Your task to perform on an android device: open app "YouTube Kids" Image 0: 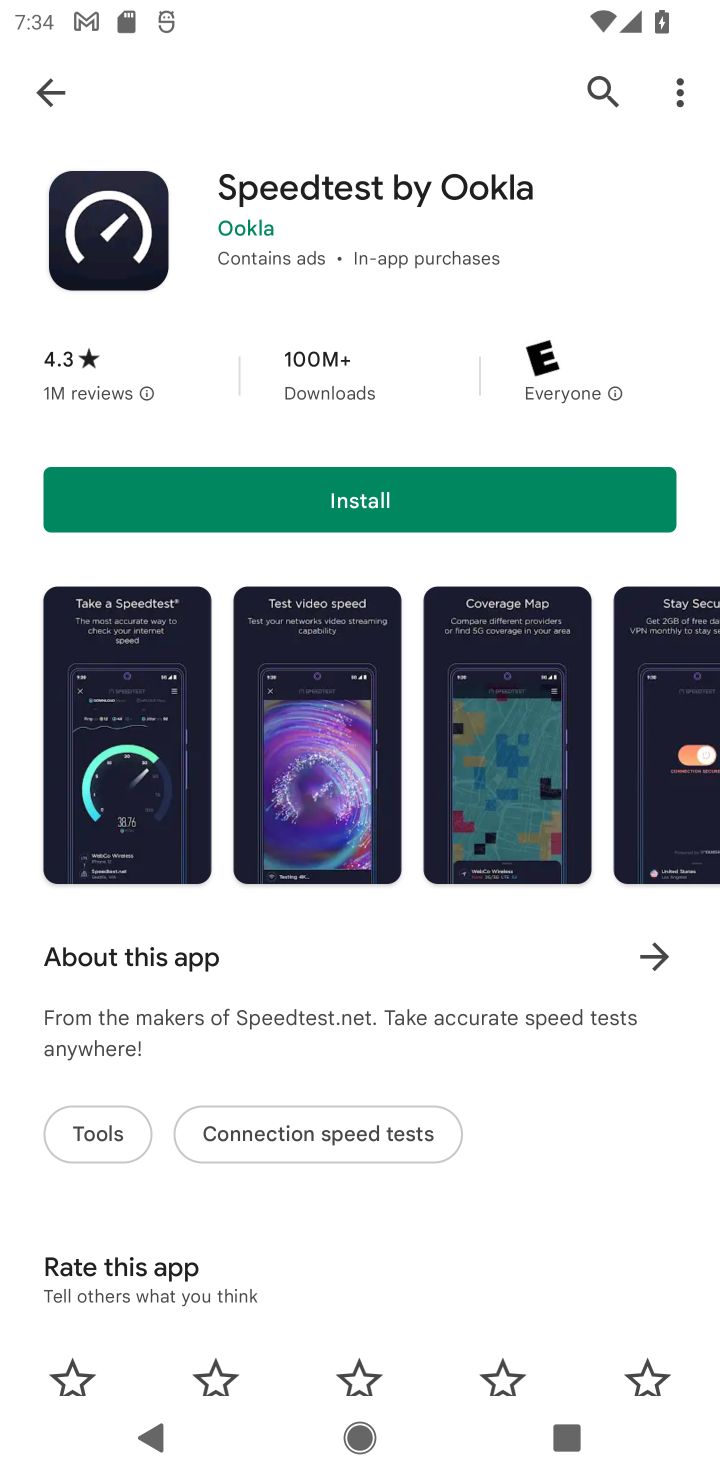
Step 0: click (60, 79)
Your task to perform on an android device: open app "YouTube Kids" Image 1: 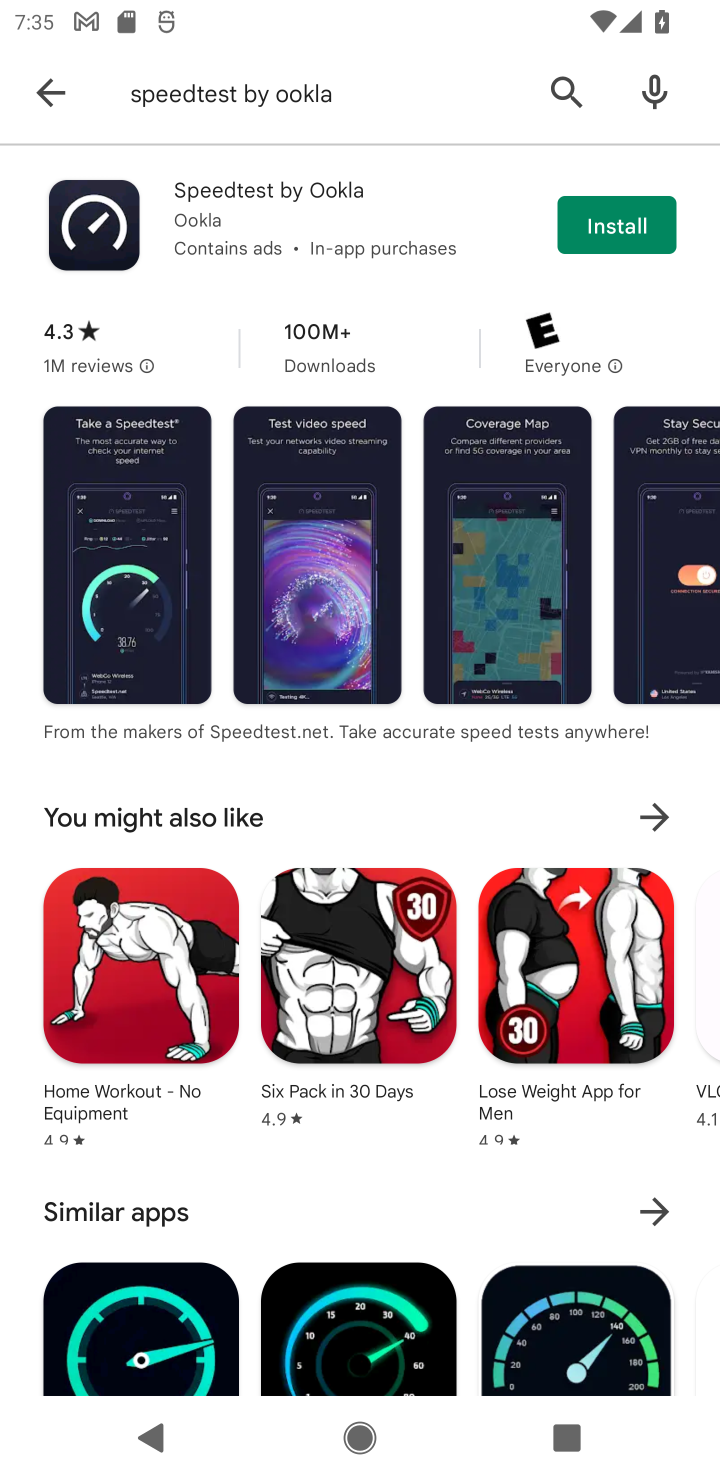
Step 1: click (59, 71)
Your task to perform on an android device: open app "YouTube Kids" Image 2: 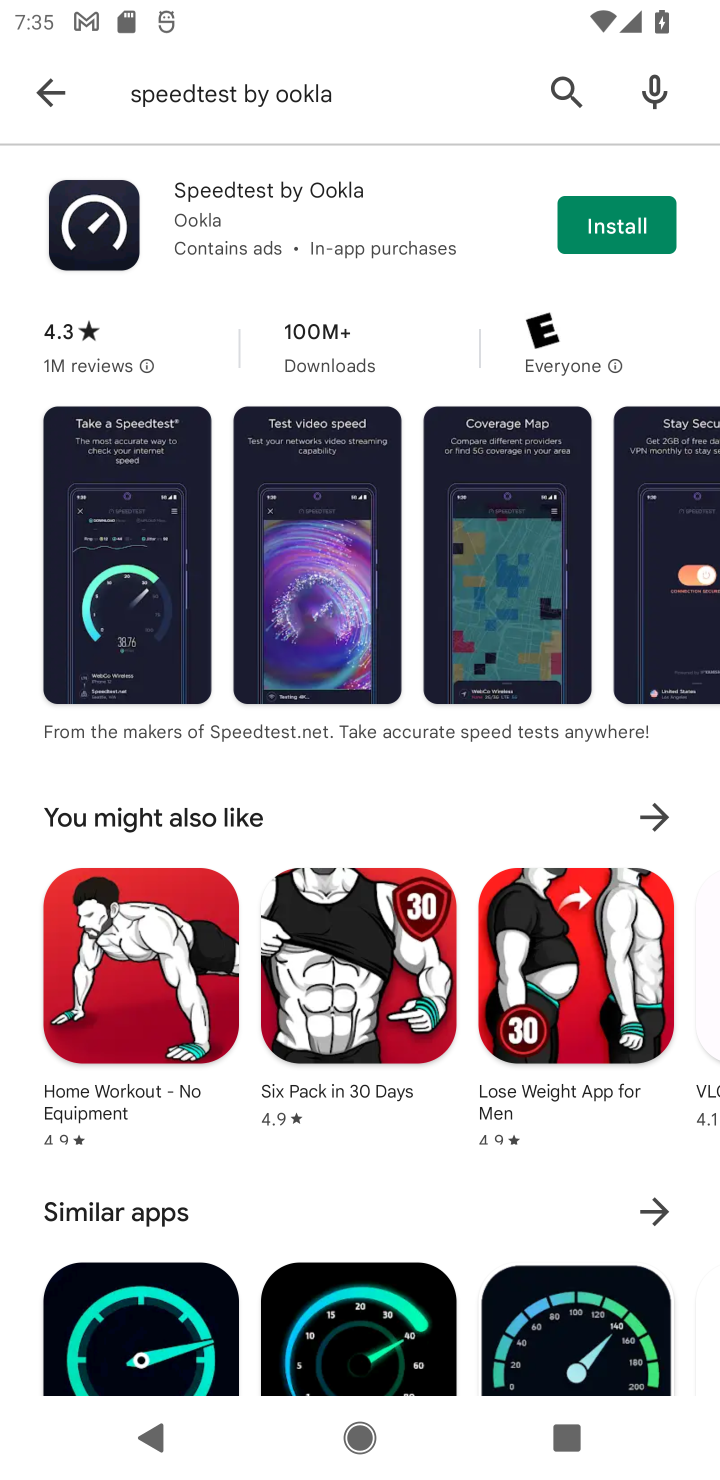
Step 2: click (10, 86)
Your task to perform on an android device: open app "YouTube Kids" Image 3: 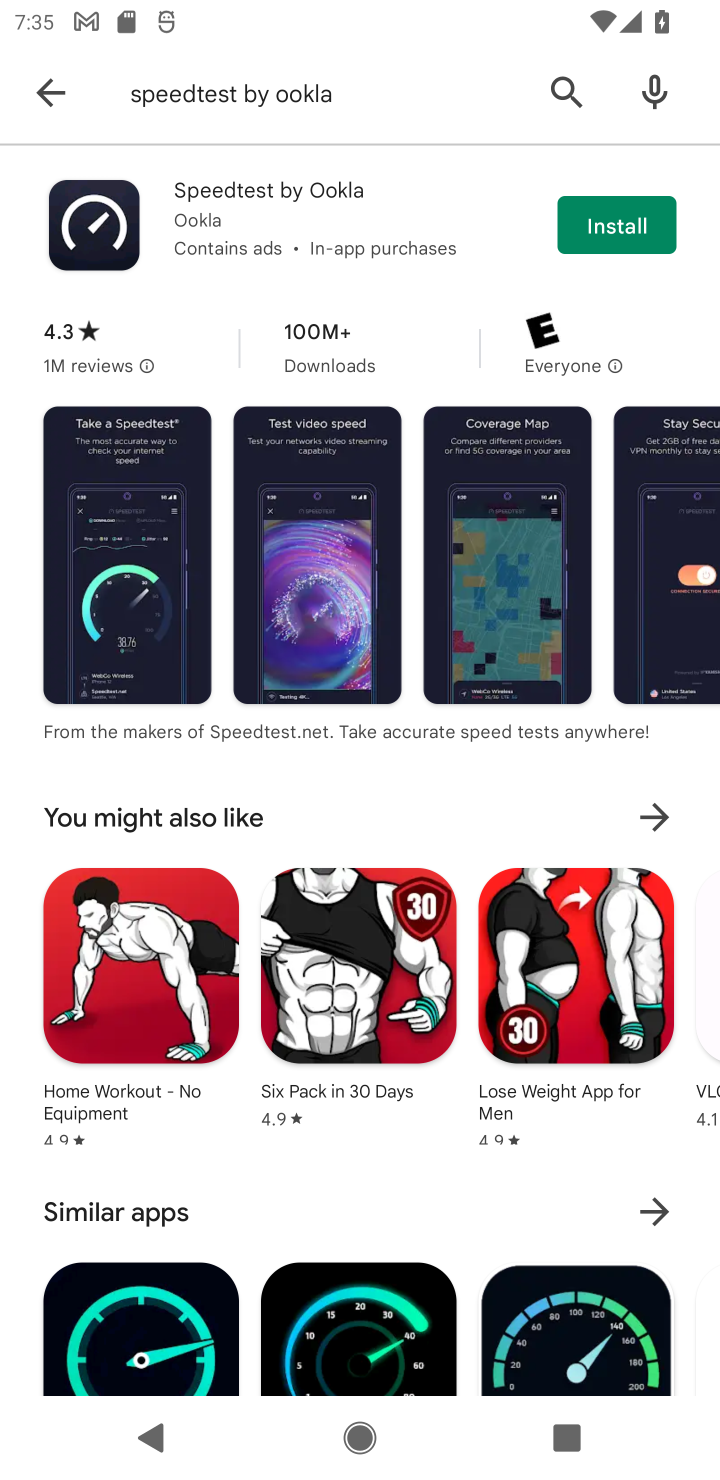
Step 3: click (34, 73)
Your task to perform on an android device: open app "YouTube Kids" Image 4: 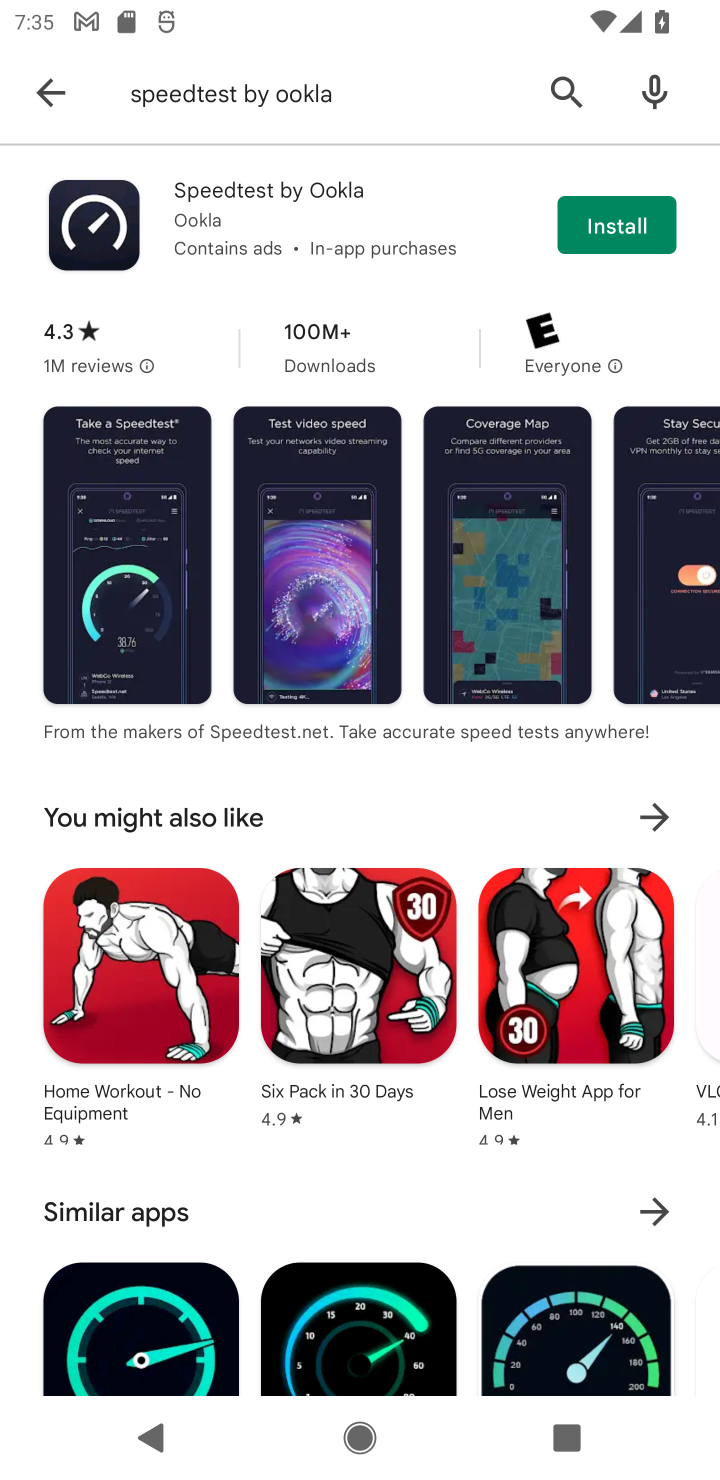
Step 4: click (37, 105)
Your task to perform on an android device: open app "YouTube Kids" Image 5: 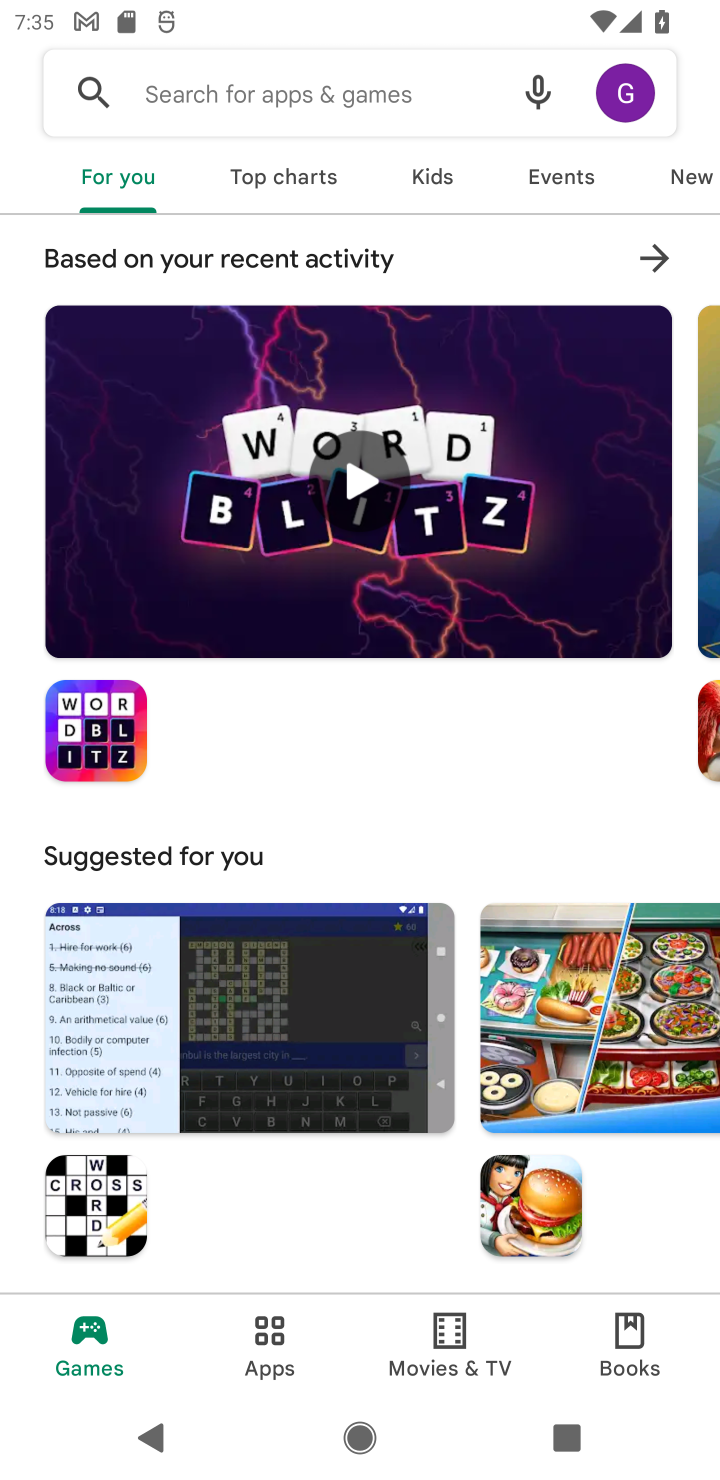
Step 5: click (191, 70)
Your task to perform on an android device: open app "YouTube Kids" Image 6: 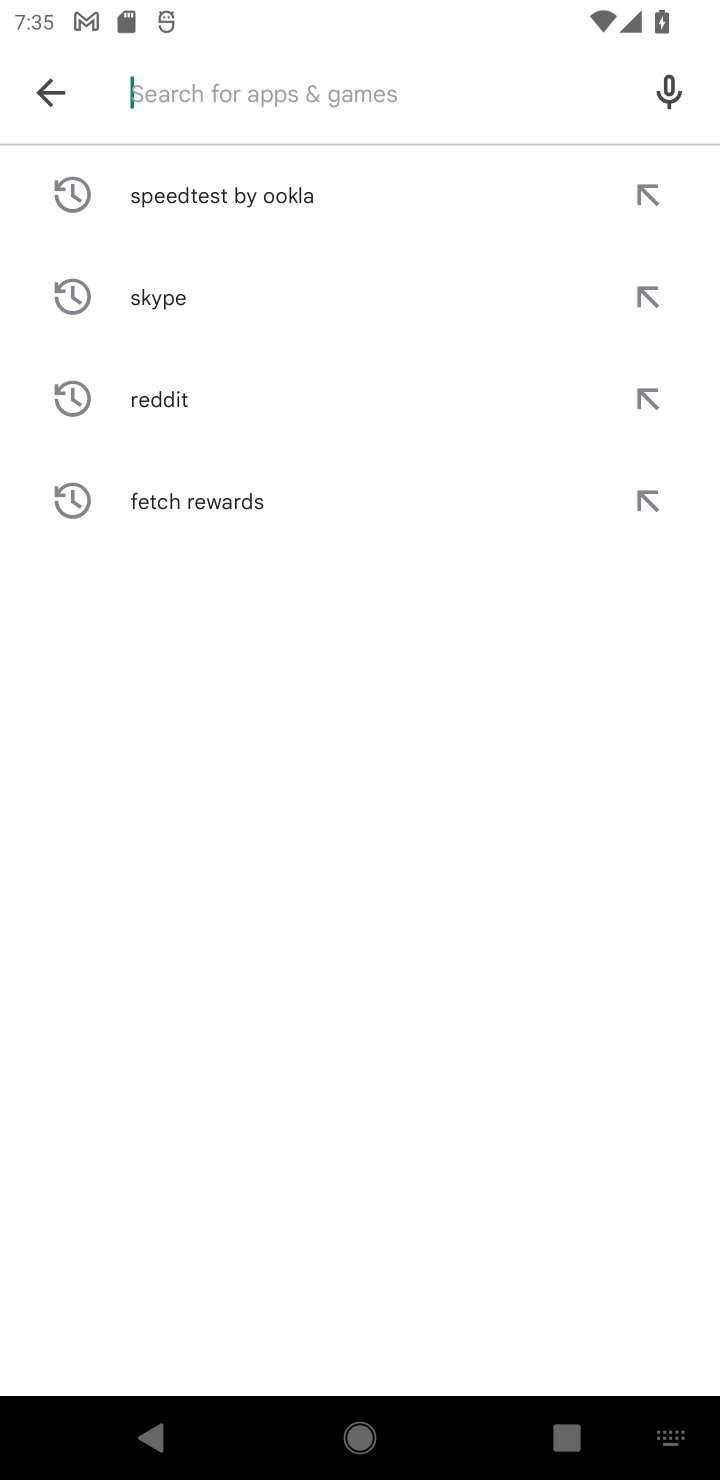
Step 6: type "YouTube Kids"
Your task to perform on an android device: open app "YouTube Kids" Image 7: 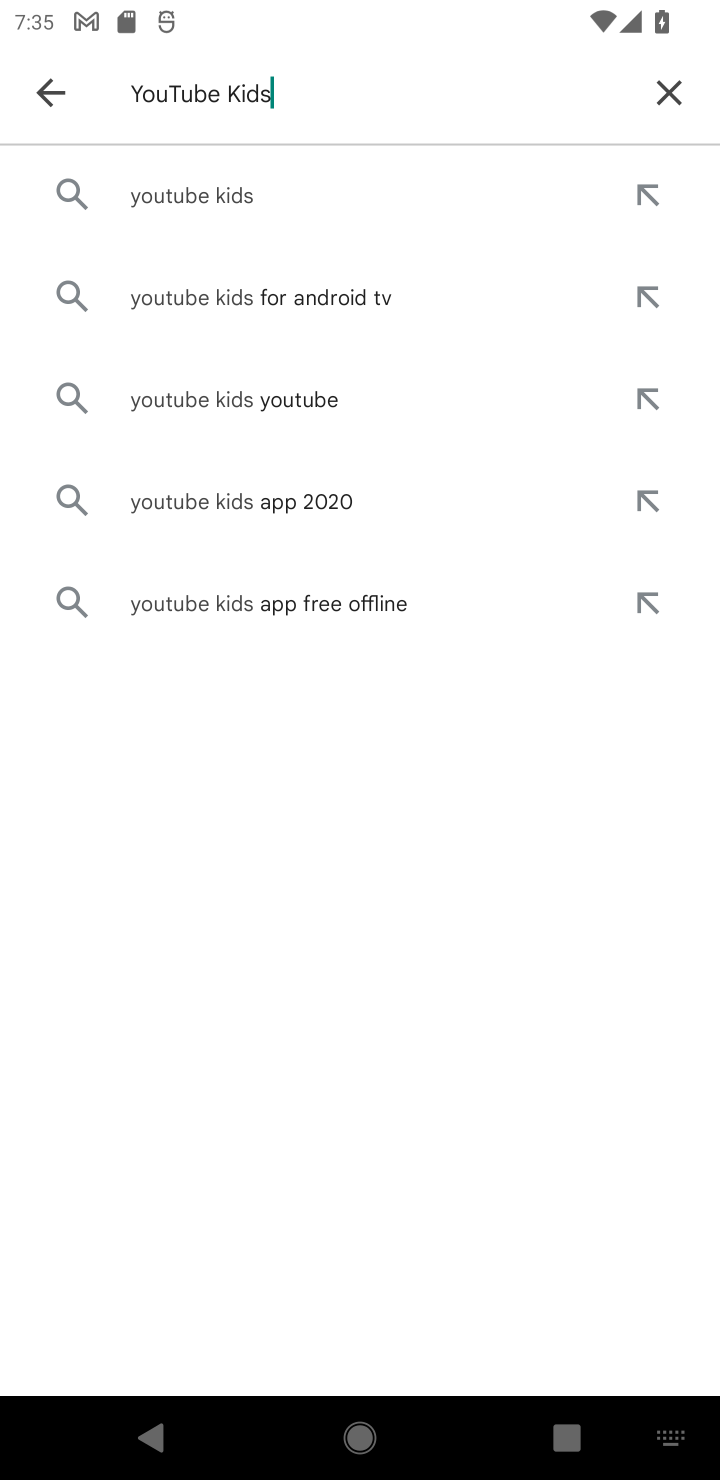
Step 7: click (174, 190)
Your task to perform on an android device: open app "YouTube Kids" Image 8: 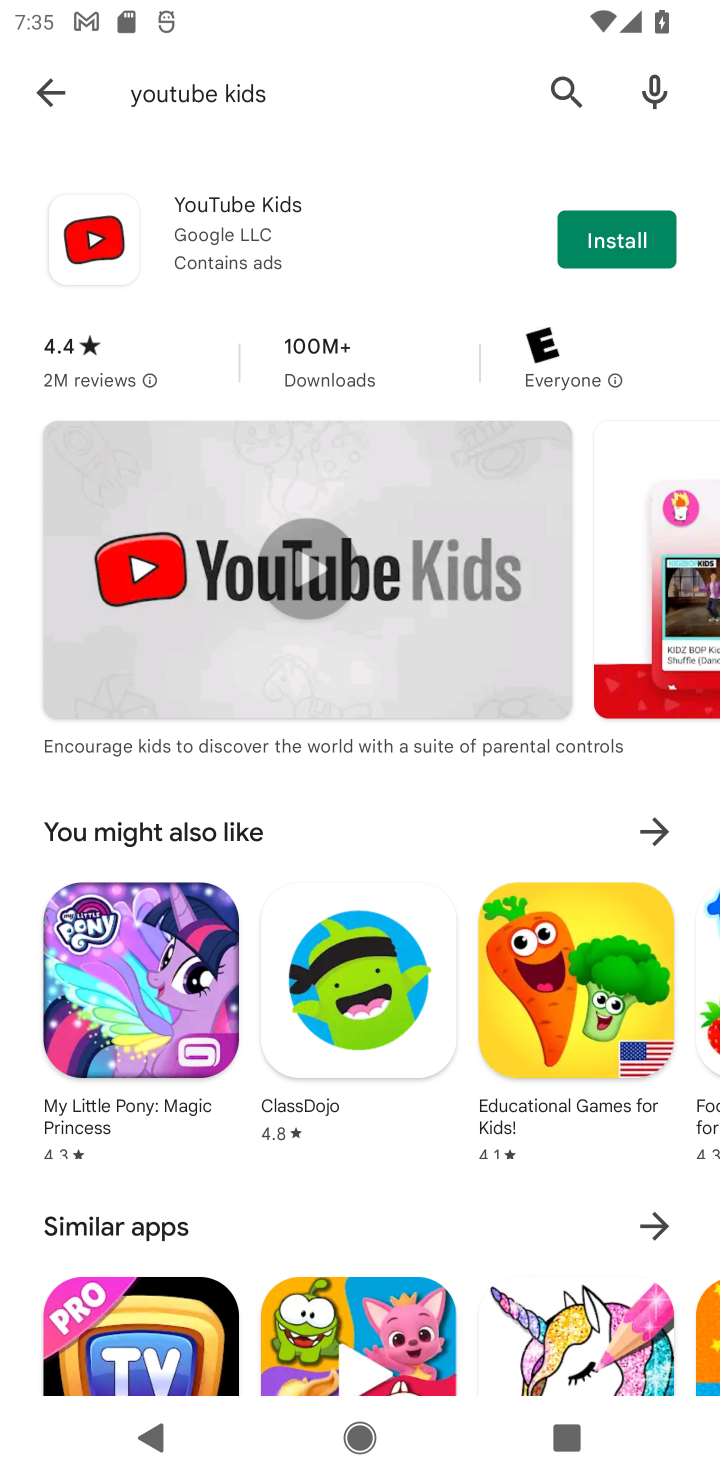
Step 8: click (199, 236)
Your task to perform on an android device: open app "YouTube Kids" Image 9: 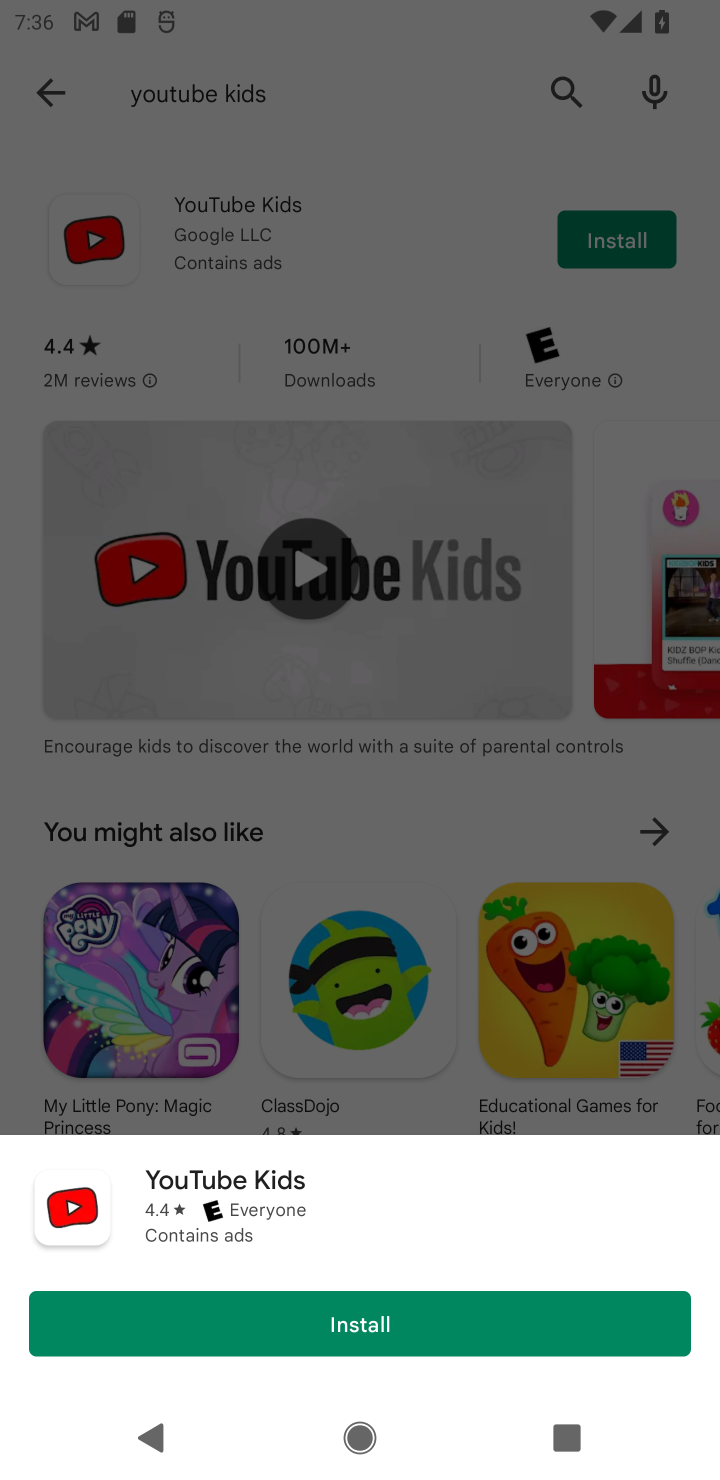
Step 9: task complete